Your task to perform on an android device: Open CNN.com Image 0: 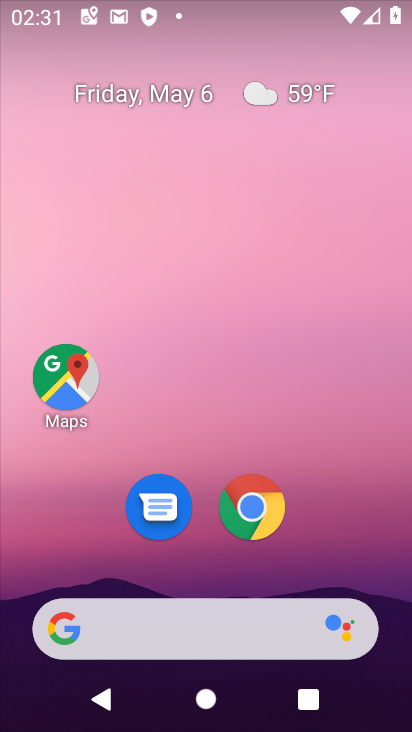
Step 0: click (256, 527)
Your task to perform on an android device: Open CNN.com Image 1: 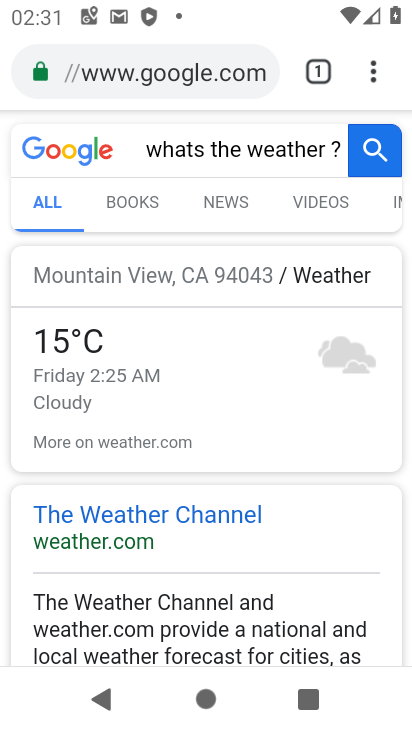
Step 1: click (158, 75)
Your task to perform on an android device: Open CNN.com Image 2: 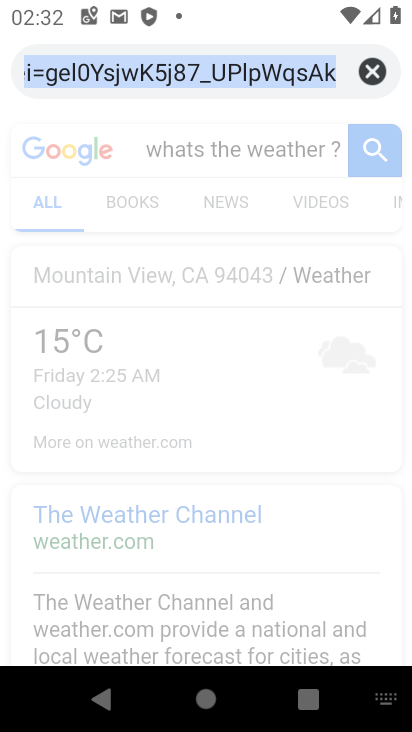
Step 2: type "CNN.com"
Your task to perform on an android device: Open CNN.com Image 3: 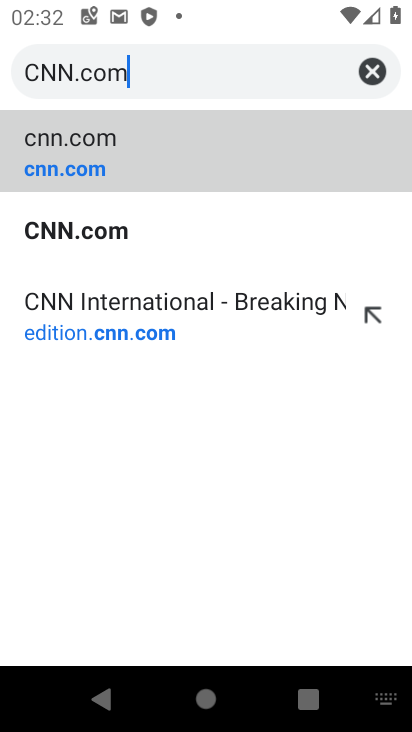
Step 3: click (35, 168)
Your task to perform on an android device: Open CNN.com Image 4: 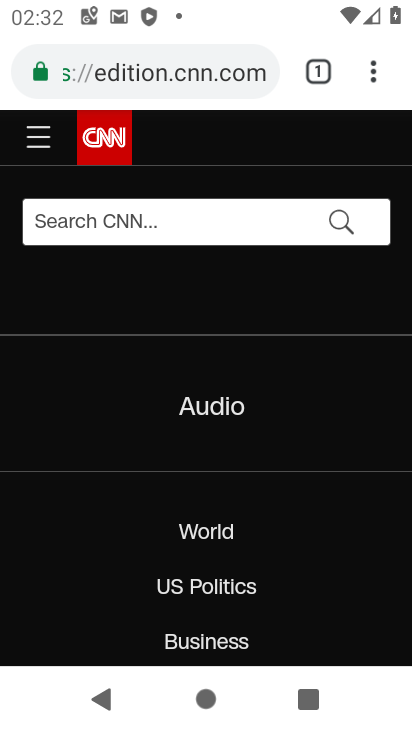
Step 4: task complete